Your task to perform on an android device: Go to Wikipedia Image 0: 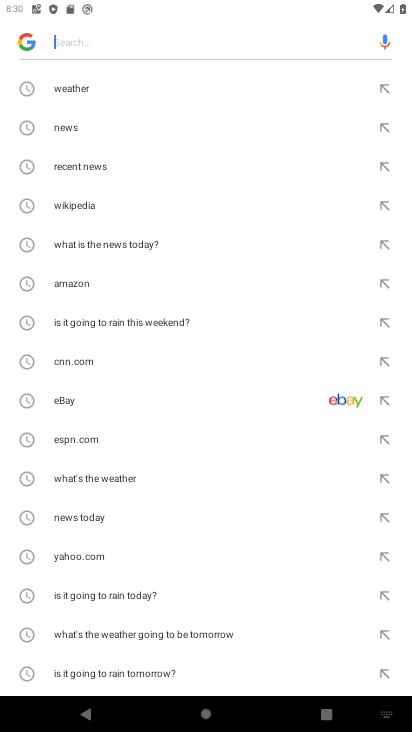
Step 0: press home button
Your task to perform on an android device: Go to Wikipedia Image 1: 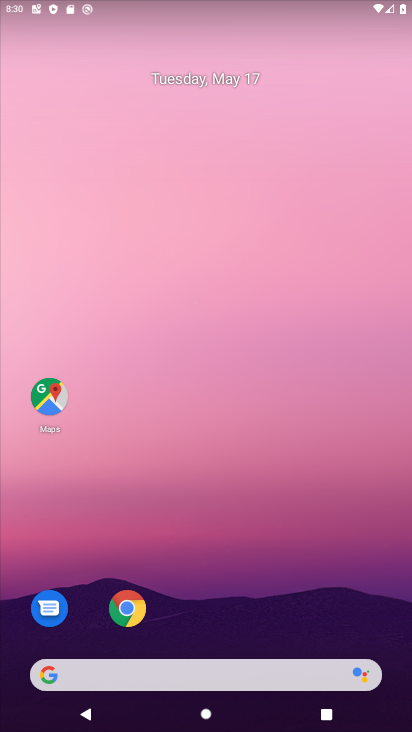
Step 1: click (123, 612)
Your task to perform on an android device: Go to Wikipedia Image 2: 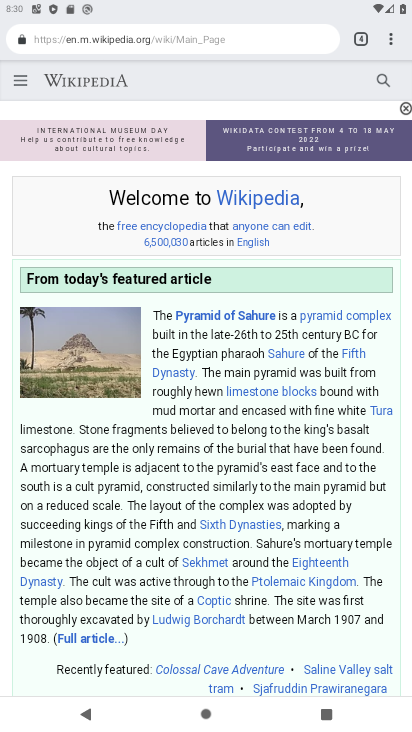
Step 2: task complete